Your task to perform on an android device: stop showing notifications on the lock screen Image 0: 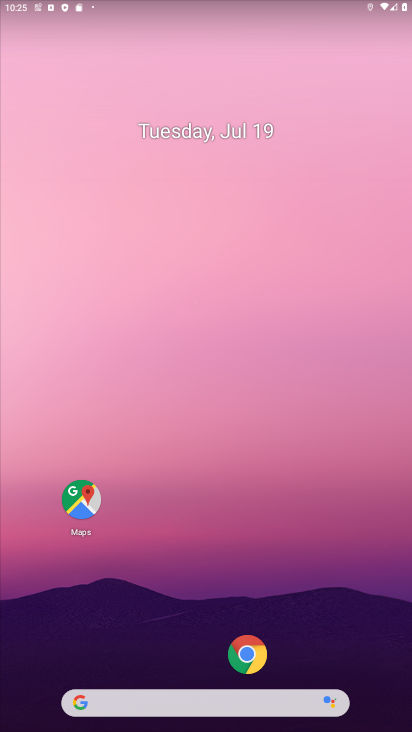
Step 0: drag from (135, 649) to (189, 127)
Your task to perform on an android device: stop showing notifications on the lock screen Image 1: 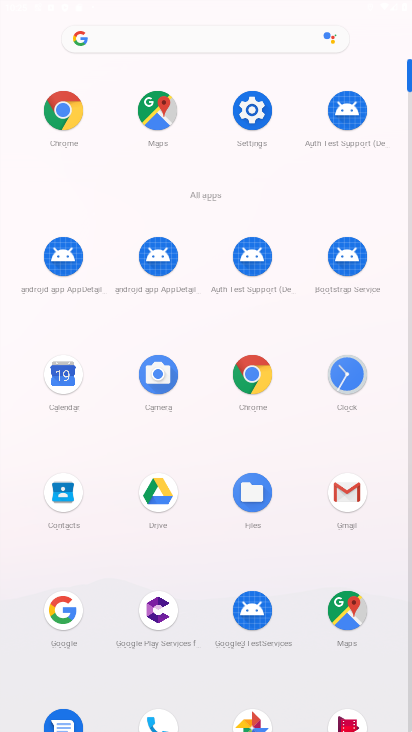
Step 1: click (253, 109)
Your task to perform on an android device: stop showing notifications on the lock screen Image 2: 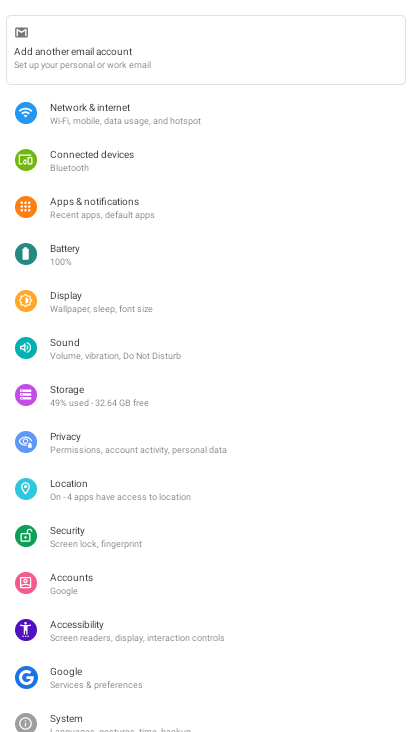
Step 2: click (127, 206)
Your task to perform on an android device: stop showing notifications on the lock screen Image 3: 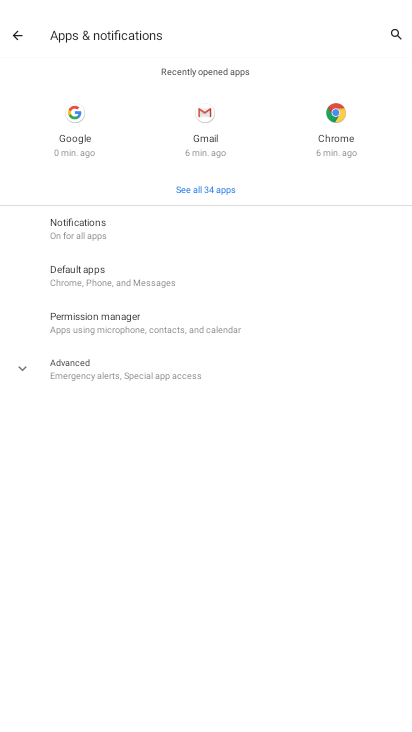
Step 3: click (129, 230)
Your task to perform on an android device: stop showing notifications on the lock screen Image 4: 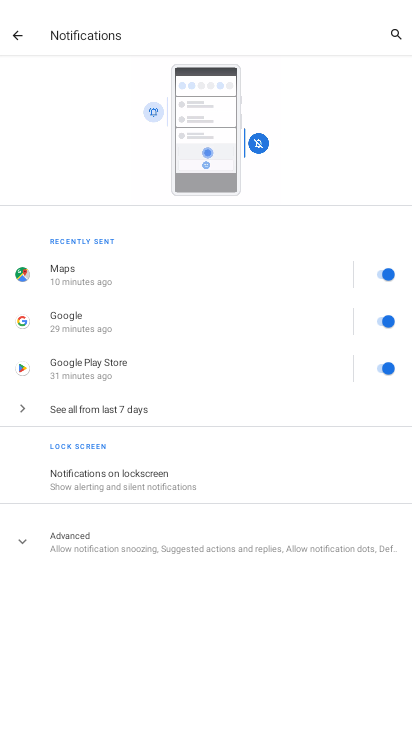
Step 4: click (161, 484)
Your task to perform on an android device: stop showing notifications on the lock screen Image 5: 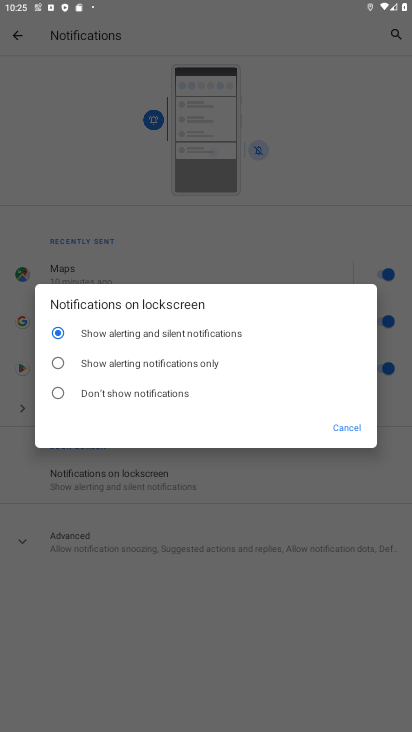
Step 5: click (56, 386)
Your task to perform on an android device: stop showing notifications on the lock screen Image 6: 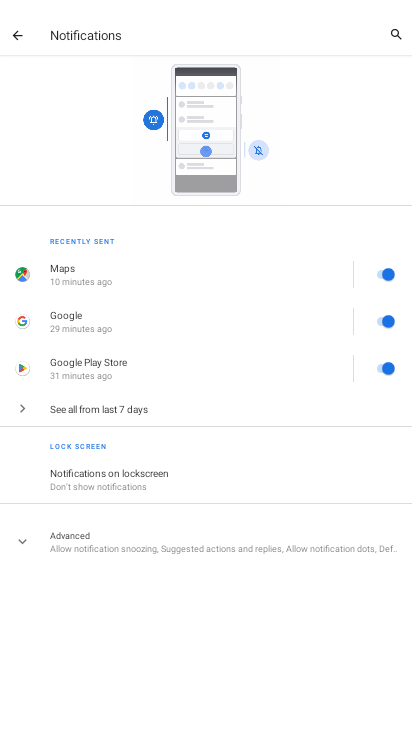
Step 6: task complete